Your task to perform on an android device: Go to network settings Image 0: 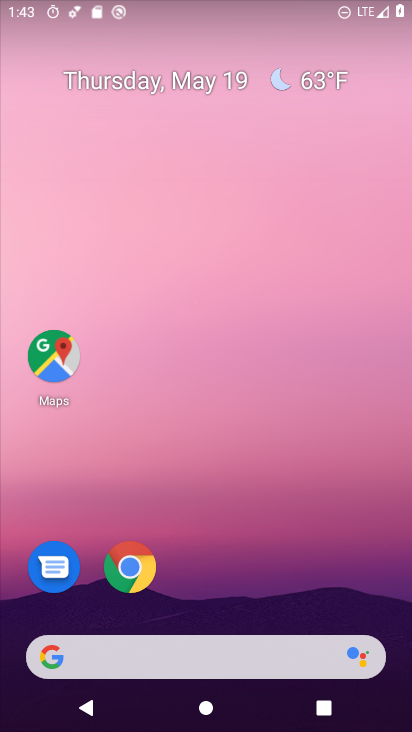
Step 0: press home button
Your task to perform on an android device: Go to network settings Image 1: 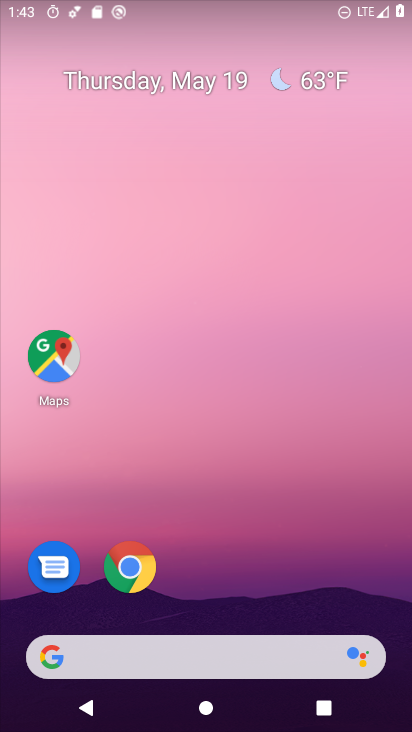
Step 1: drag from (201, 648) to (321, 238)
Your task to perform on an android device: Go to network settings Image 2: 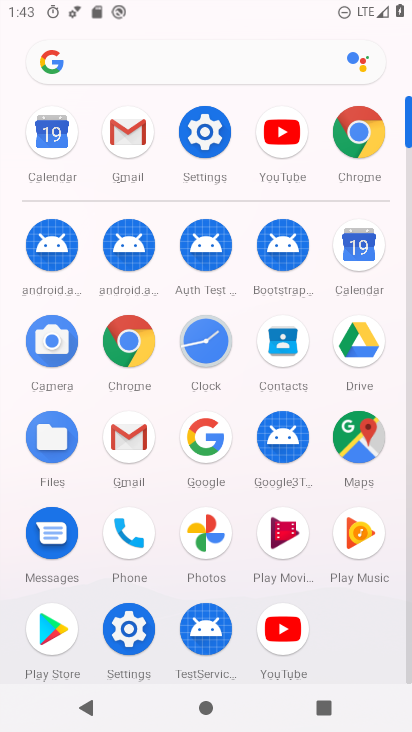
Step 2: click (213, 136)
Your task to perform on an android device: Go to network settings Image 3: 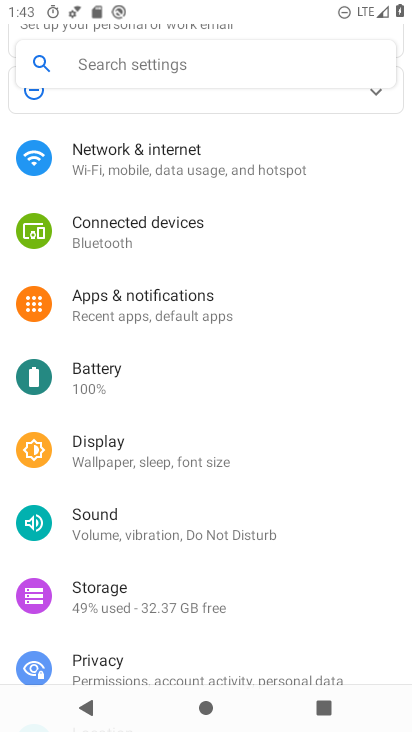
Step 3: click (194, 156)
Your task to perform on an android device: Go to network settings Image 4: 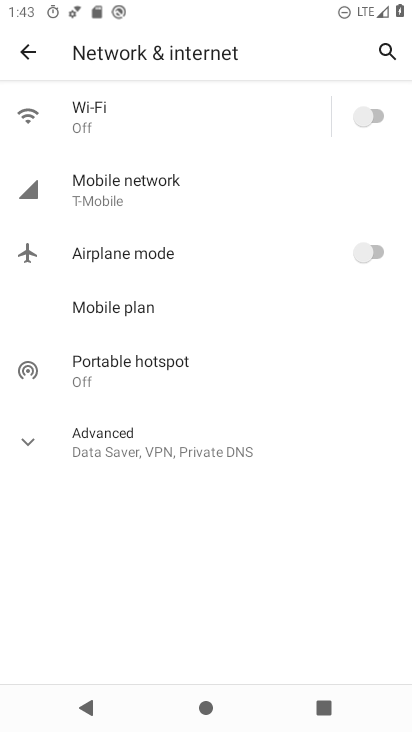
Step 4: task complete